Your task to perform on an android device: add a contact Image 0: 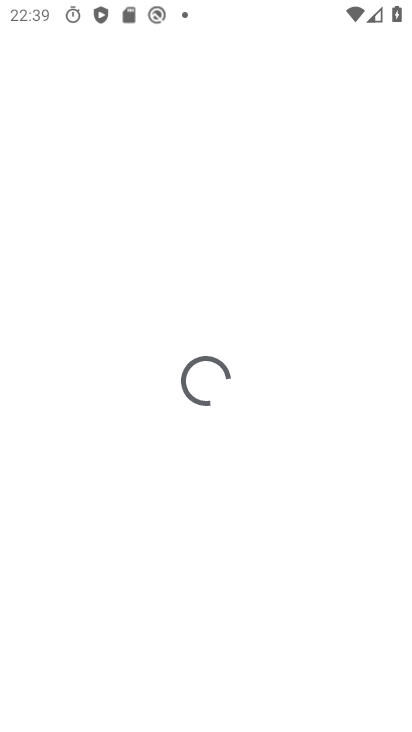
Step 0: drag from (232, 670) to (218, 464)
Your task to perform on an android device: add a contact Image 1: 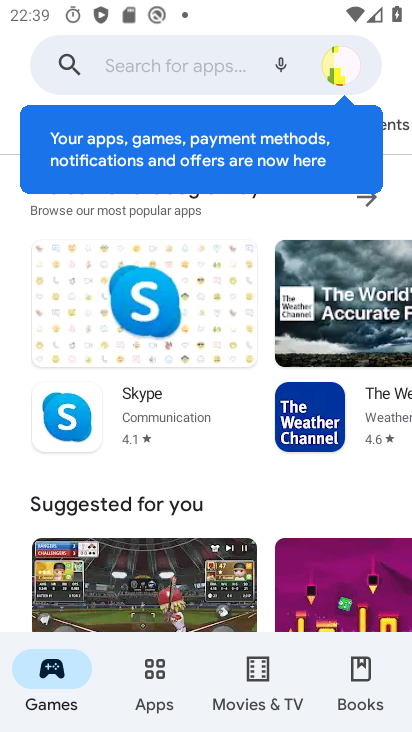
Step 1: press home button
Your task to perform on an android device: add a contact Image 2: 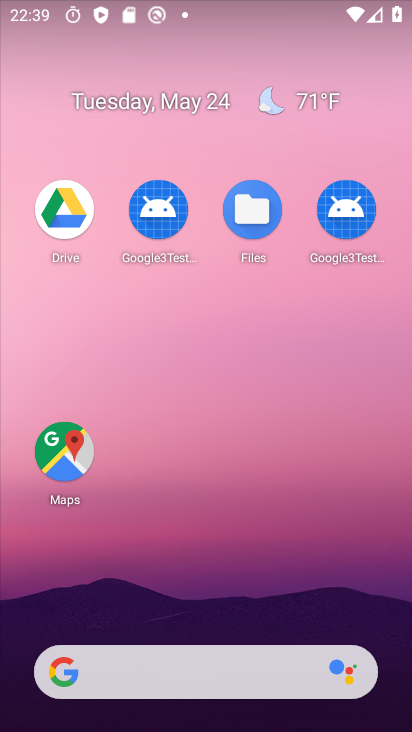
Step 2: drag from (221, 622) to (183, 31)
Your task to perform on an android device: add a contact Image 3: 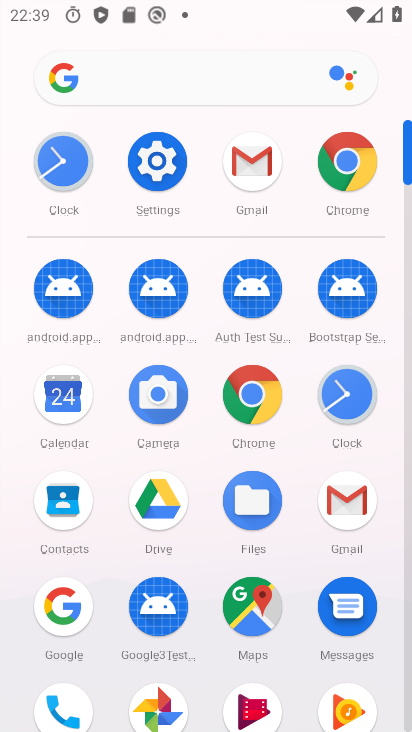
Step 3: click (60, 699)
Your task to perform on an android device: add a contact Image 4: 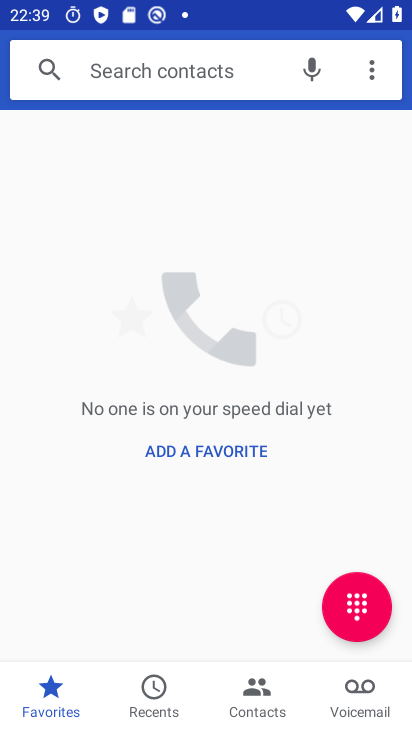
Step 4: click (258, 694)
Your task to perform on an android device: add a contact Image 5: 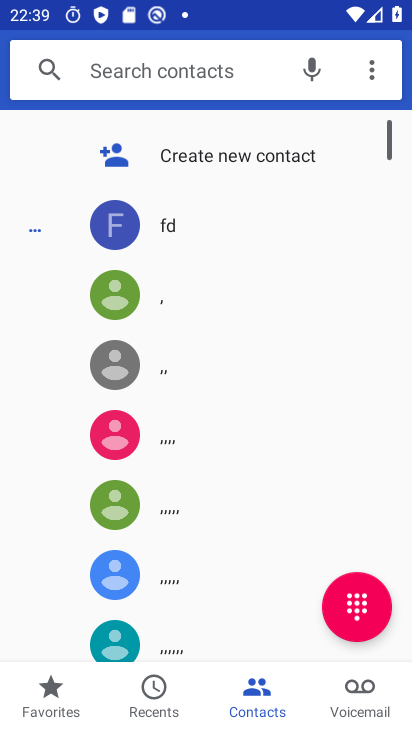
Step 5: click (278, 162)
Your task to perform on an android device: add a contact Image 6: 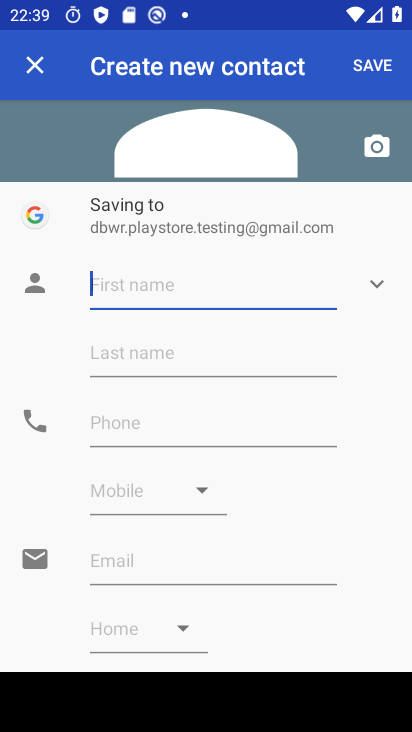
Step 6: type "jiop"
Your task to perform on an android device: add a contact Image 7: 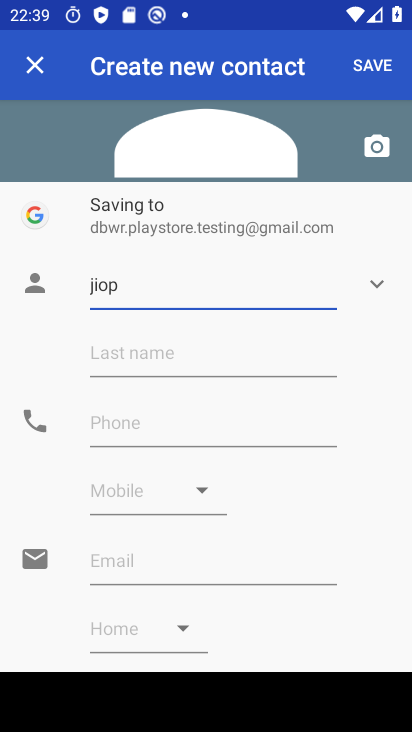
Step 7: click (139, 416)
Your task to perform on an android device: add a contact Image 8: 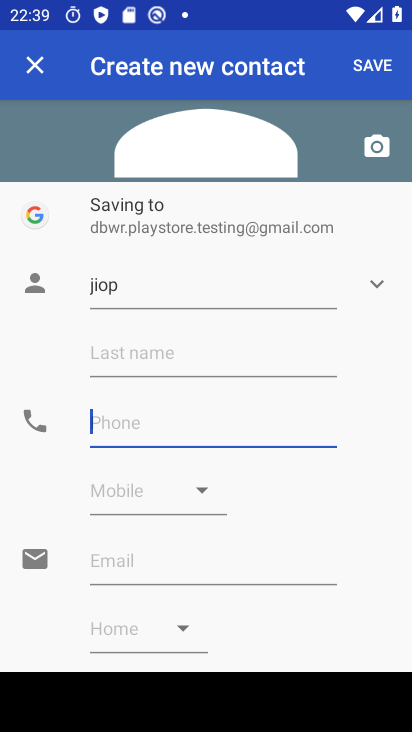
Step 8: type "8765"
Your task to perform on an android device: add a contact Image 9: 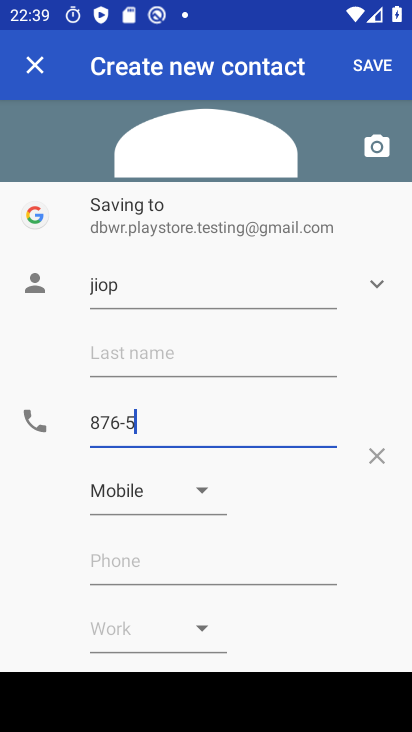
Step 9: click (384, 64)
Your task to perform on an android device: add a contact Image 10: 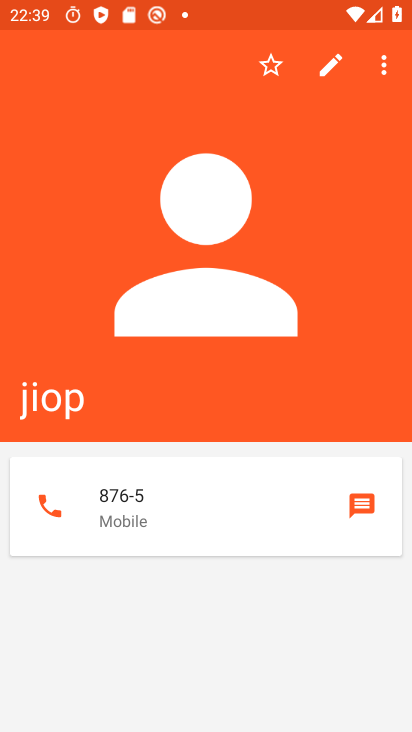
Step 10: task complete